Your task to perform on an android device: Open eBay Image 0: 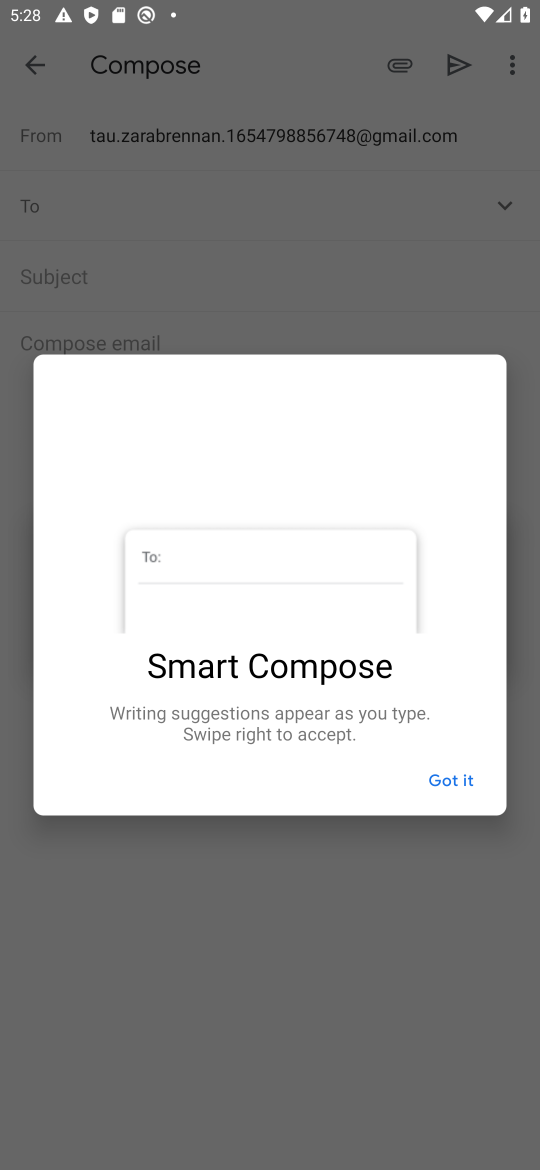
Step 0: click (464, 773)
Your task to perform on an android device: Open eBay Image 1: 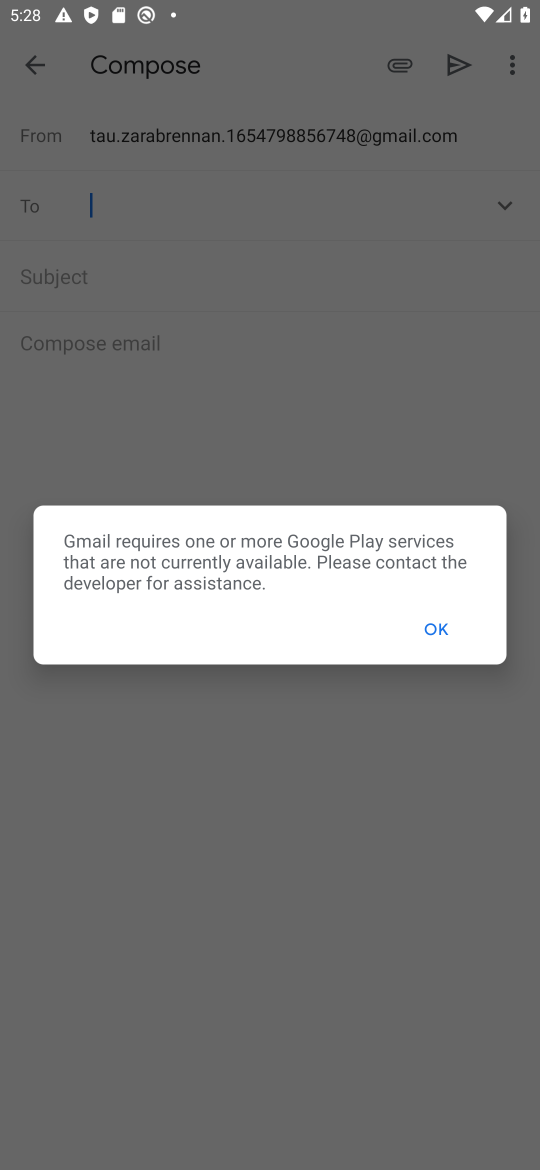
Step 1: press home button
Your task to perform on an android device: Open eBay Image 2: 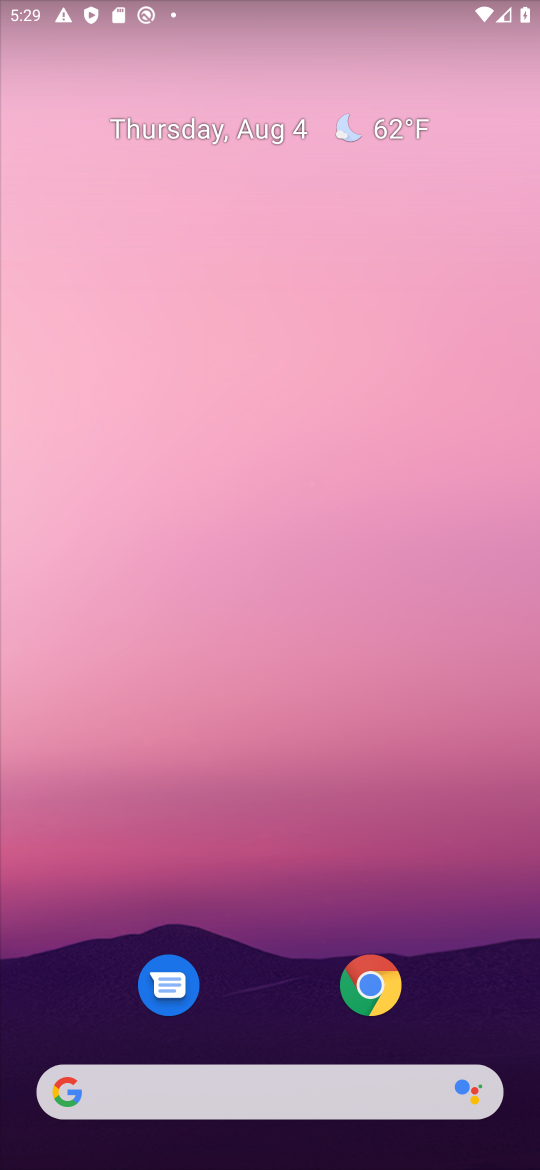
Step 2: click (371, 978)
Your task to perform on an android device: Open eBay Image 3: 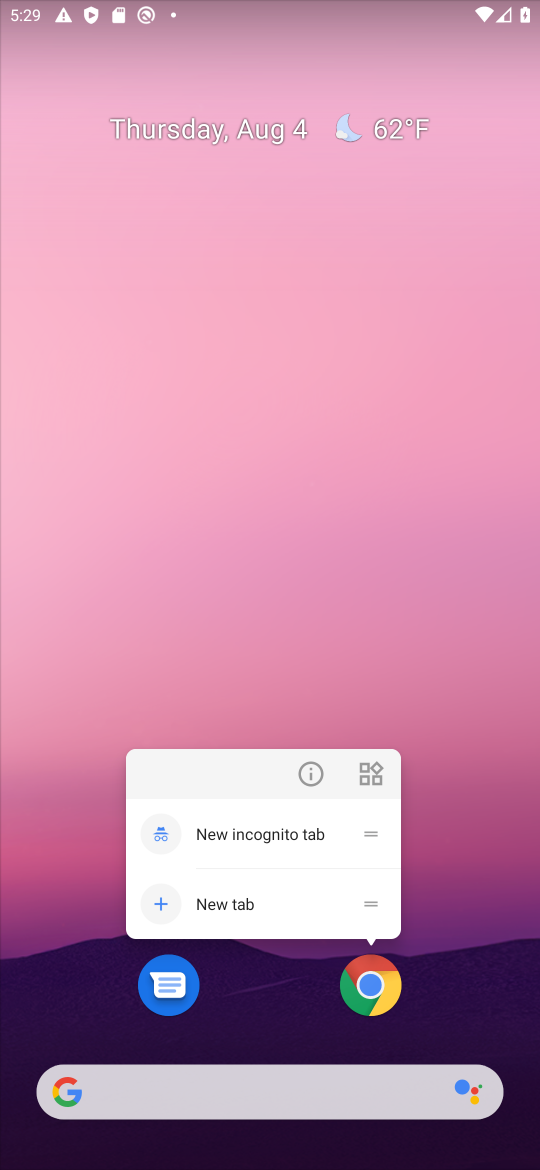
Step 3: click (378, 980)
Your task to perform on an android device: Open eBay Image 4: 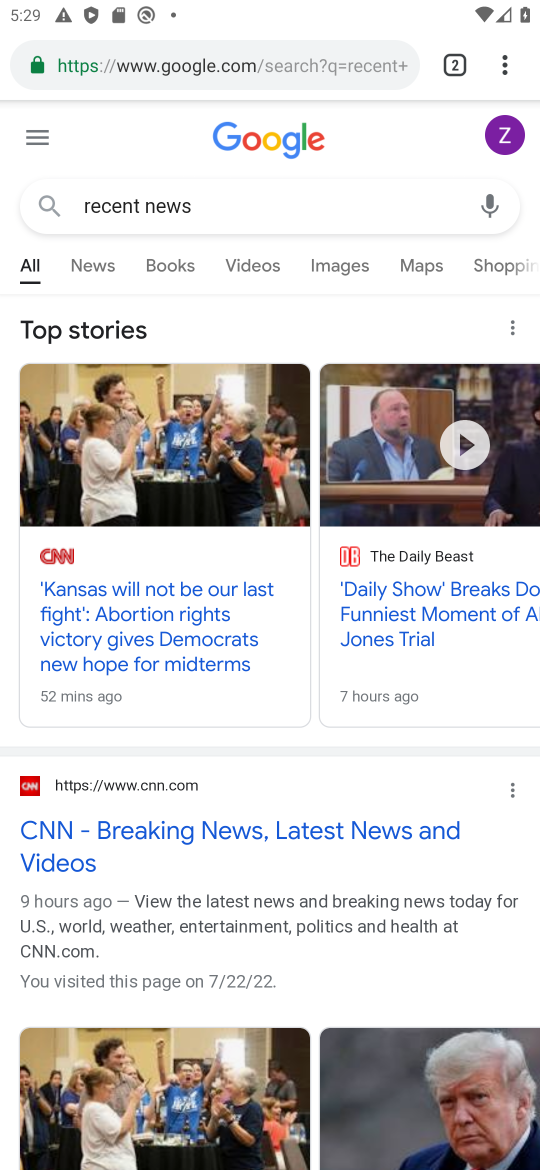
Step 4: click (320, 70)
Your task to perform on an android device: Open eBay Image 5: 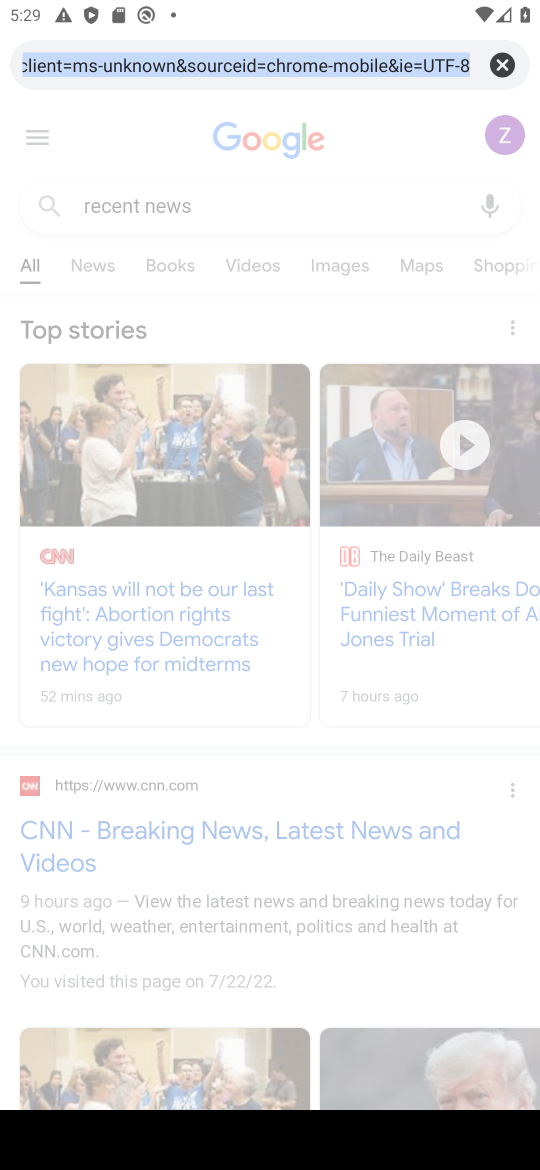
Step 5: type "ebay"
Your task to perform on an android device: Open eBay Image 6: 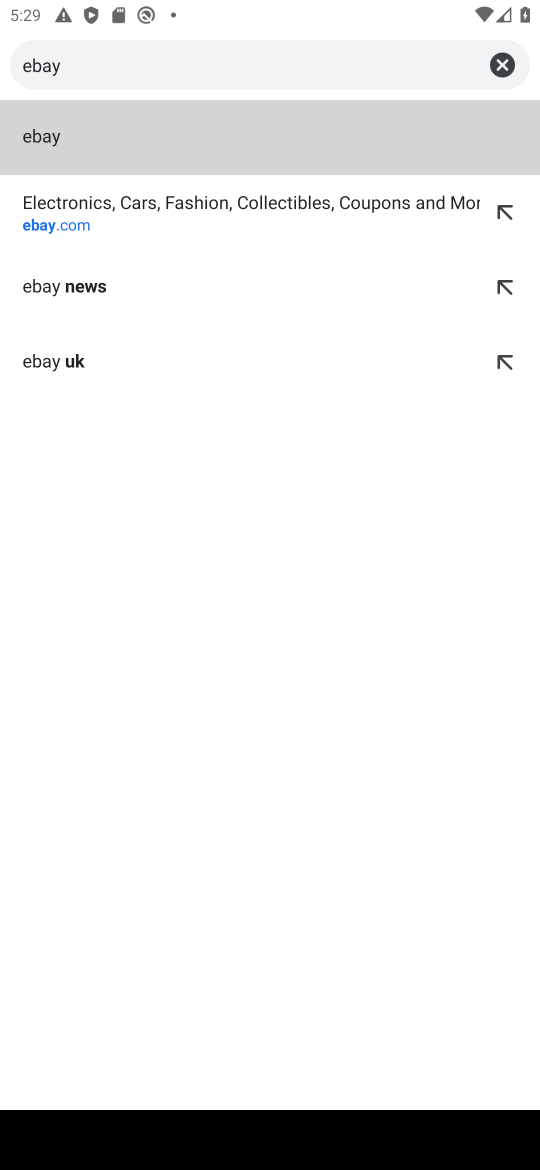
Step 6: click (219, 166)
Your task to perform on an android device: Open eBay Image 7: 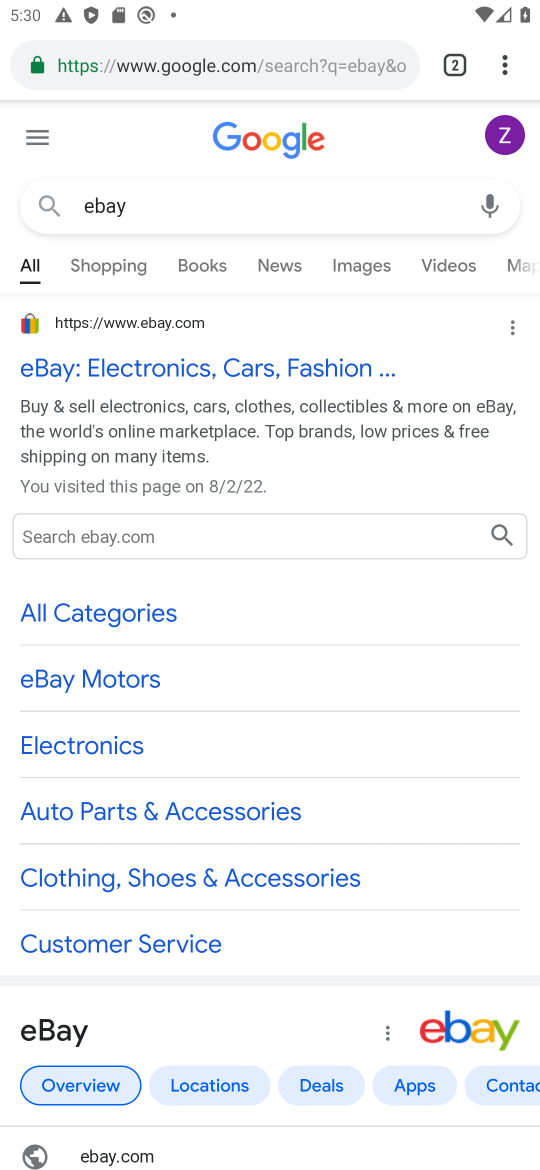
Step 7: click (137, 355)
Your task to perform on an android device: Open eBay Image 8: 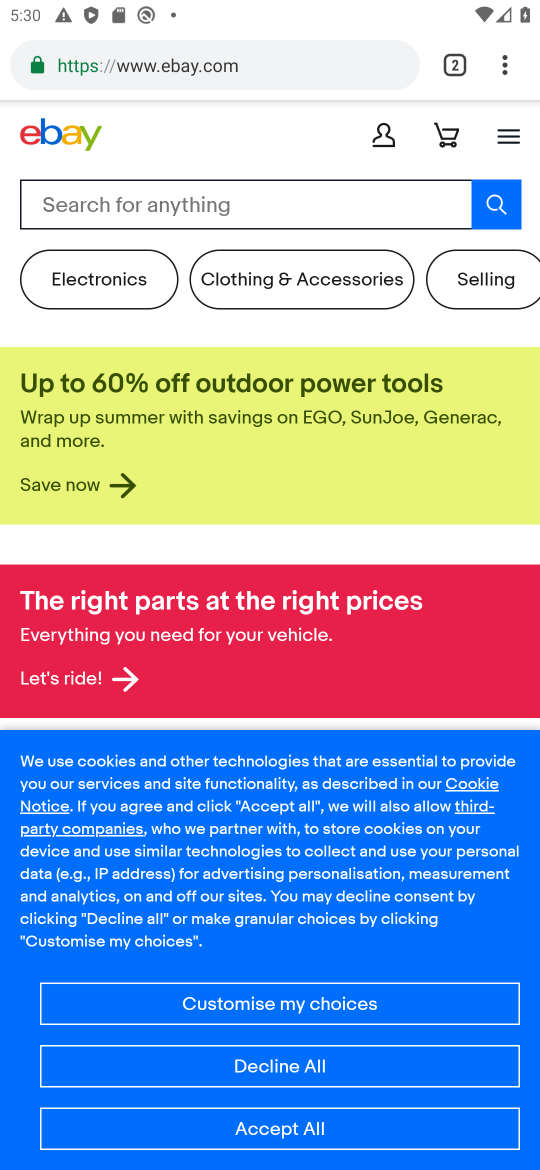
Step 8: task complete